Your task to perform on an android device: empty trash in the gmail app Image 0: 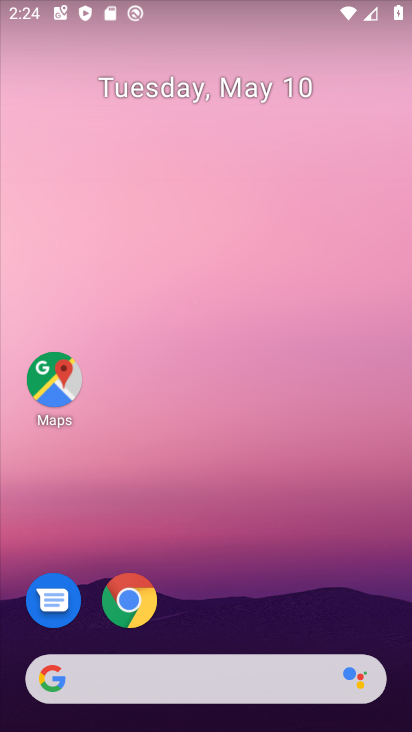
Step 0: drag from (210, 654) to (254, 202)
Your task to perform on an android device: empty trash in the gmail app Image 1: 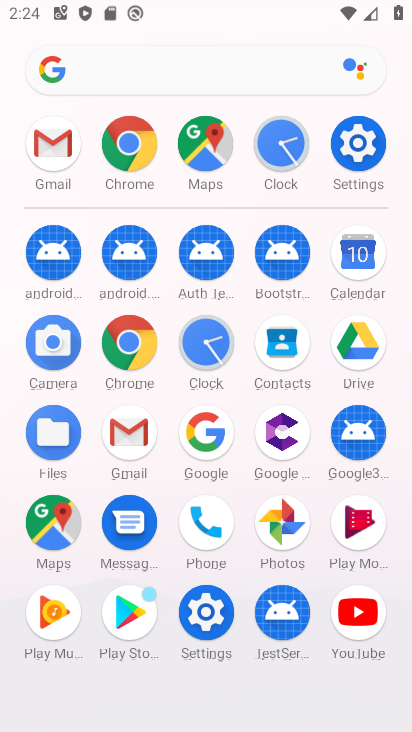
Step 1: click (136, 424)
Your task to perform on an android device: empty trash in the gmail app Image 2: 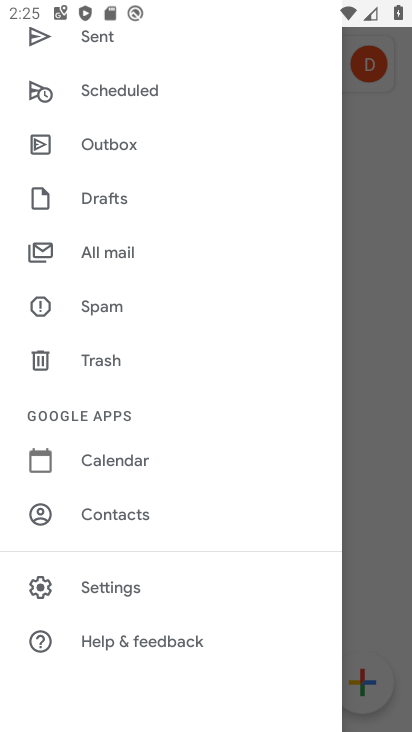
Step 2: click (103, 366)
Your task to perform on an android device: empty trash in the gmail app Image 3: 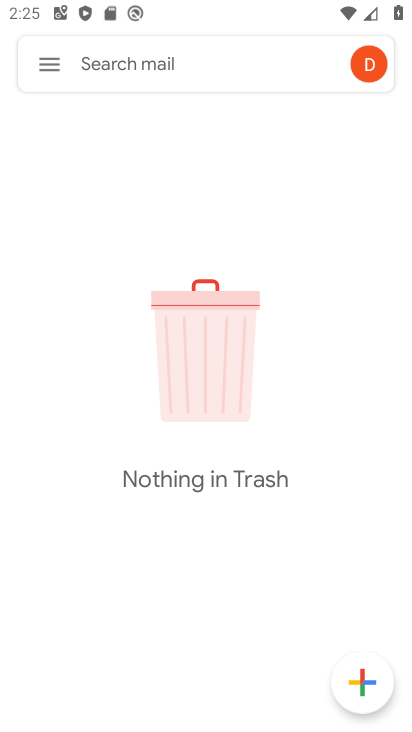
Step 3: task complete